Your task to perform on an android device: turn off notifications settings in the gmail app Image 0: 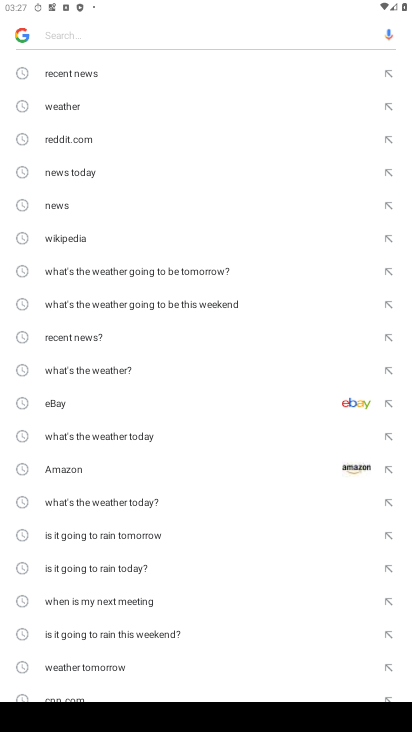
Step 0: press home button
Your task to perform on an android device: turn off notifications settings in the gmail app Image 1: 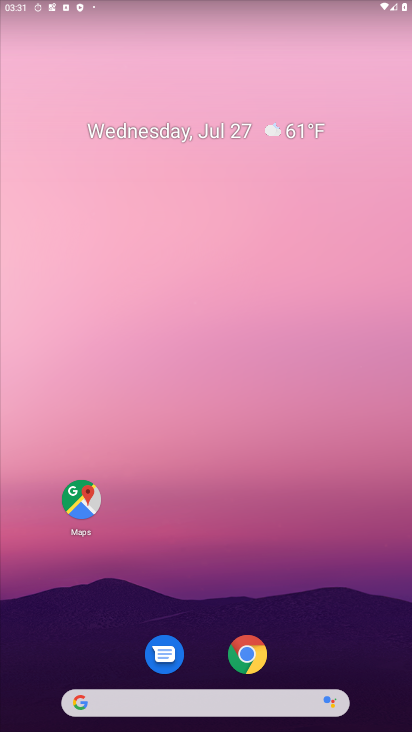
Step 1: drag from (222, 692) to (189, 311)
Your task to perform on an android device: turn off notifications settings in the gmail app Image 2: 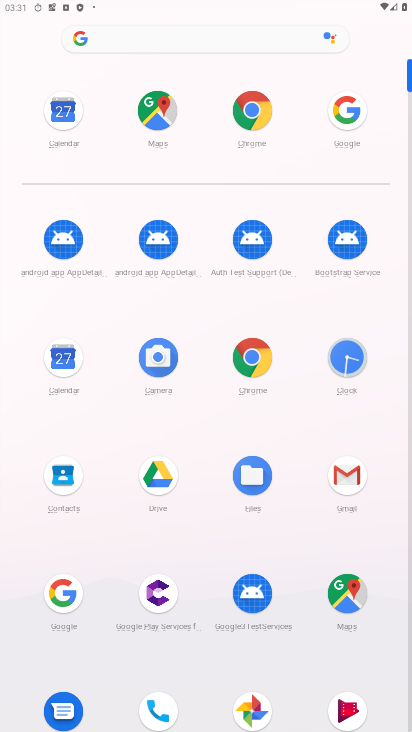
Step 2: click (338, 467)
Your task to perform on an android device: turn off notifications settings in the gmail app Image 3: 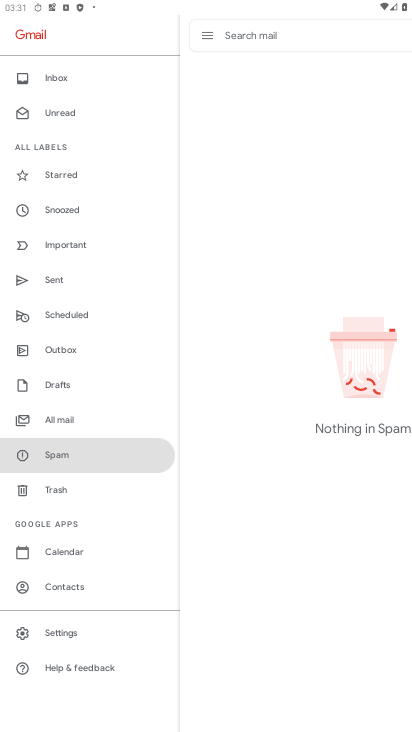
Step 3: click (49, 631)
Your task to perform on an android device: turn off notifications settings in the gmail app Image 4: 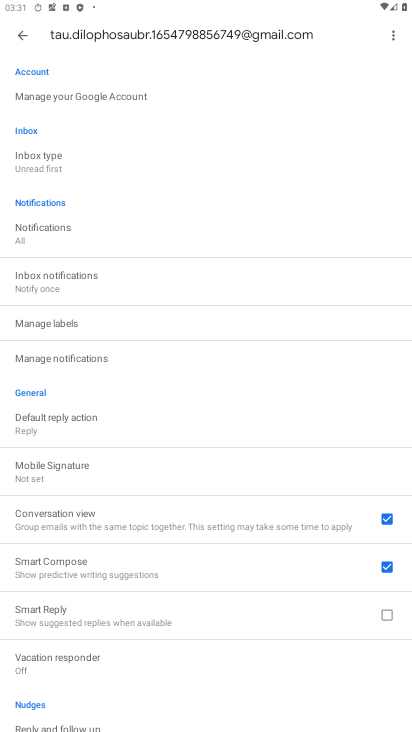
Step 4: click (99, 266)
Your task to perform on an android device: turn off notifications settings in the gmail app Image 5: 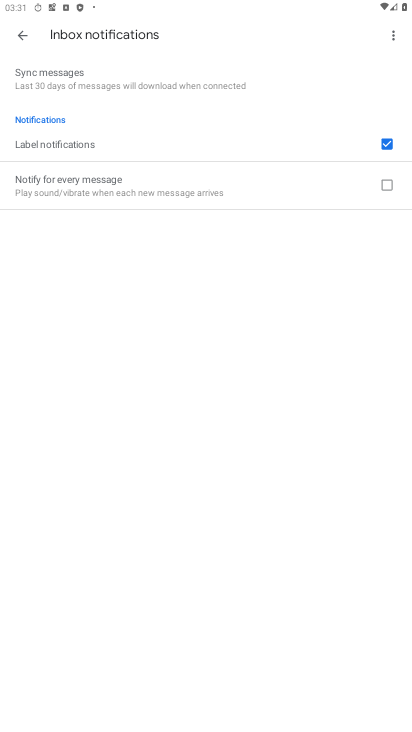
Step 5: task complete